Your task to perform on an android device: turn off sleep mode Image 0: 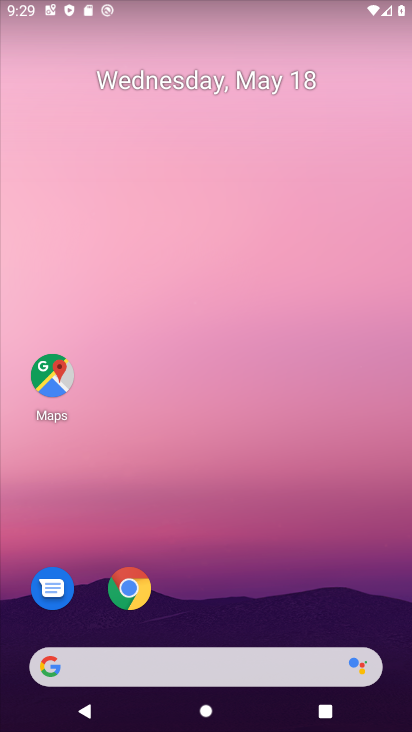
Step 0: drag from (256, 678) to (309, 196)
Your task to perform on an android device: turn off sleep mode Image 1: 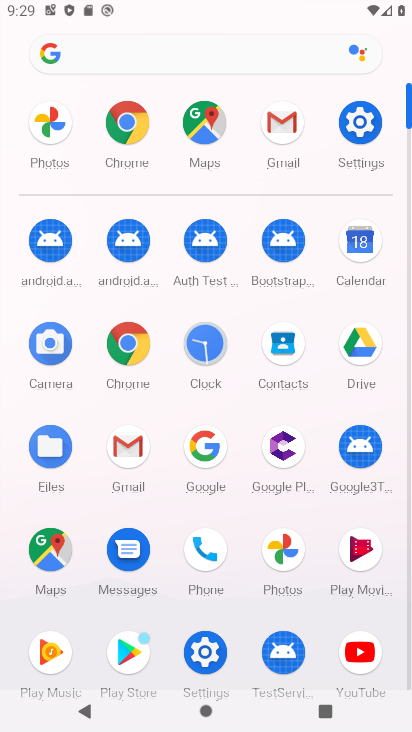
Step 1: click (202, 642)
Your task to perform on an android device: turn off sleep mode Image 2: 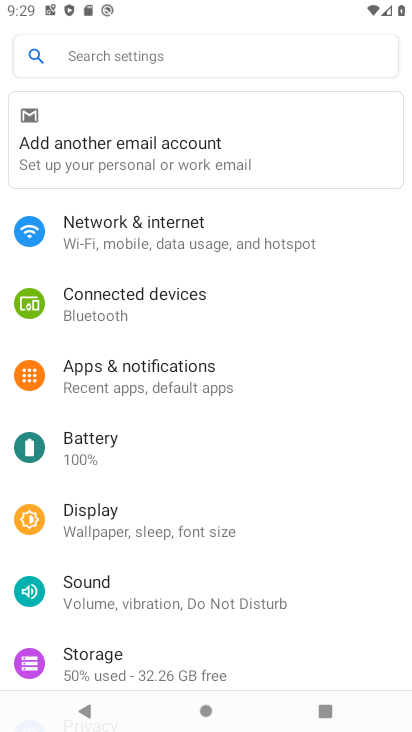
Step 2: click (129, 60)
Your task to perform on an android device: turn off sleep mode Image 3: 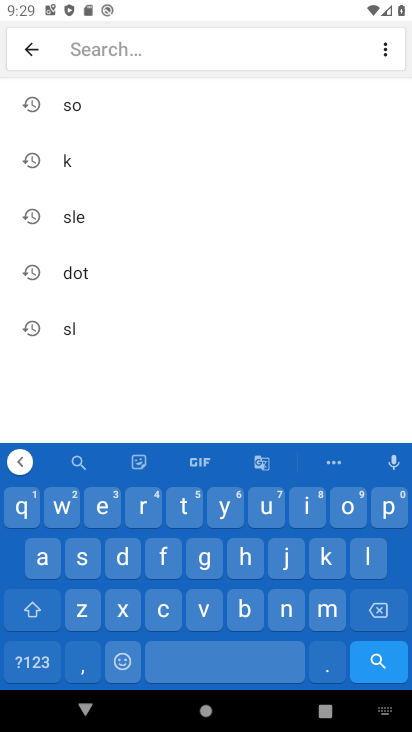
Step 3: click (87, 565)
Your task to perform on an android device: turn off sleep mode Image 4: 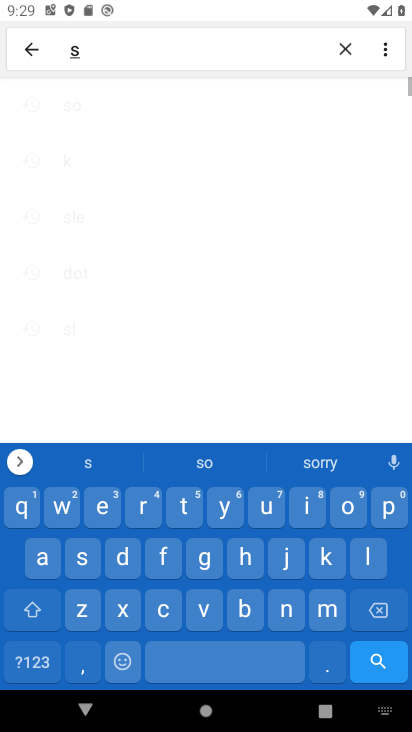
Step 4: click (372, 562)
Your task to perform on an android device: turn off sleep mode Image 5: 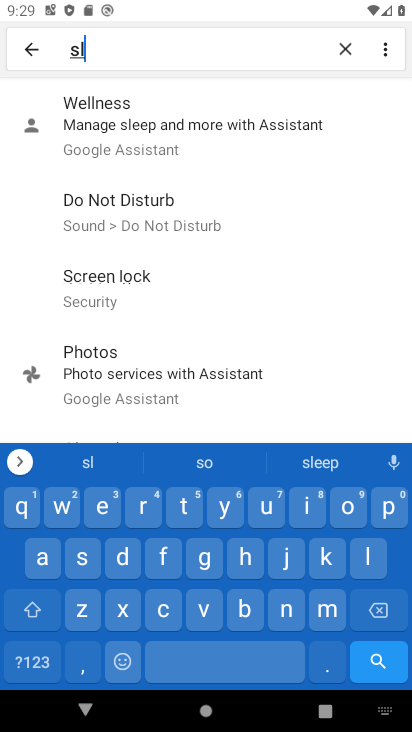
Step 5: click (154, 122)
Your task to perform on an android device: turn off sleep mode Image 6: 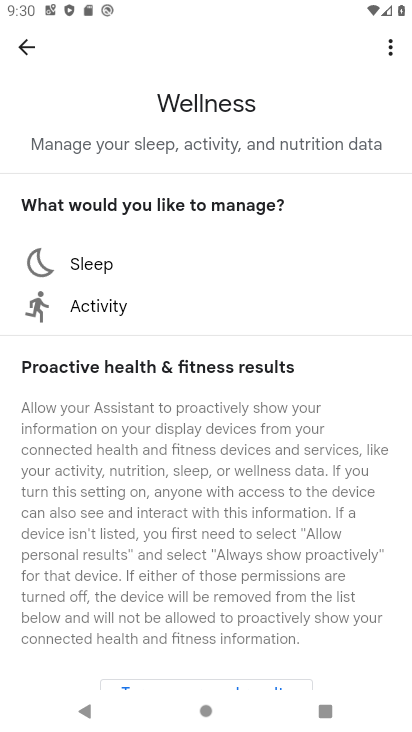
Step 6: click (88, 264)
Your task to perform on an android device: turn off sleep mode Image 7: 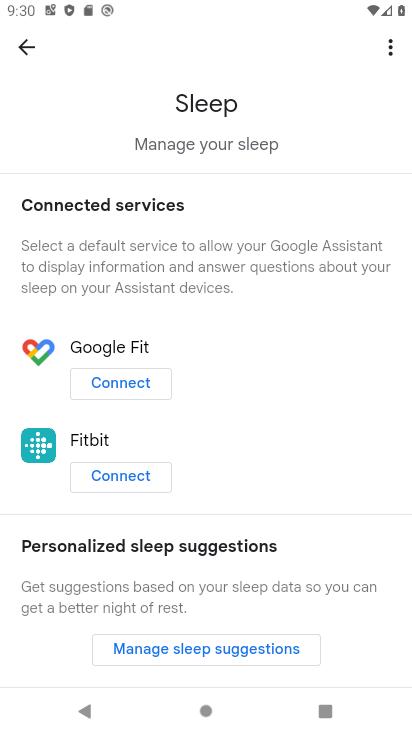
Step 7: task complete